Your task to perform on an android device: install app "YouTube Kids" Image 0: 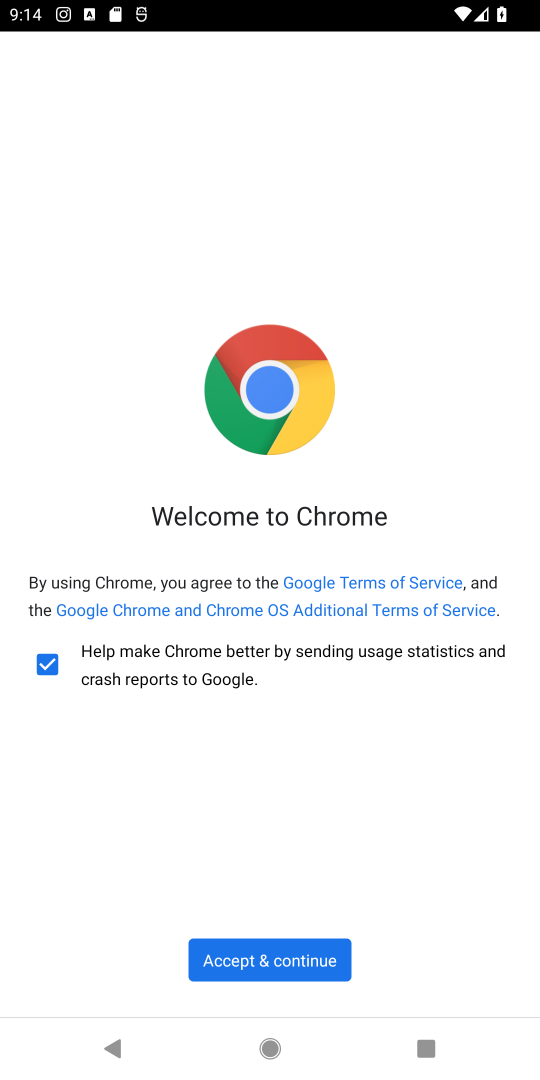
Step 0: press home button
Your task to perform on an android device: install app "YouTube Kids" Image 1: 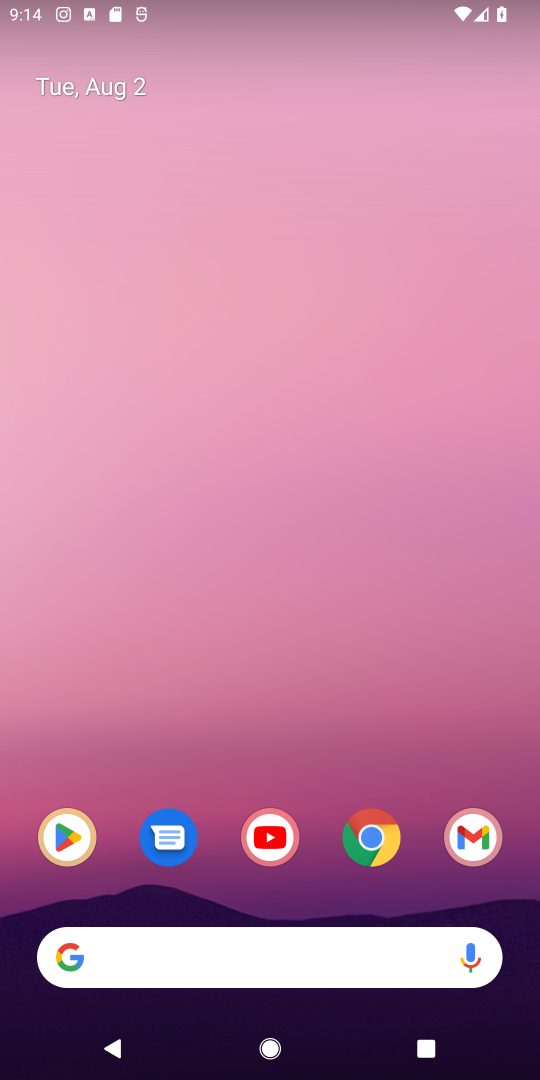
Step 1: click (74, 837)
Your task to perform on an android device: install app "YouTube Kids" Image 2: 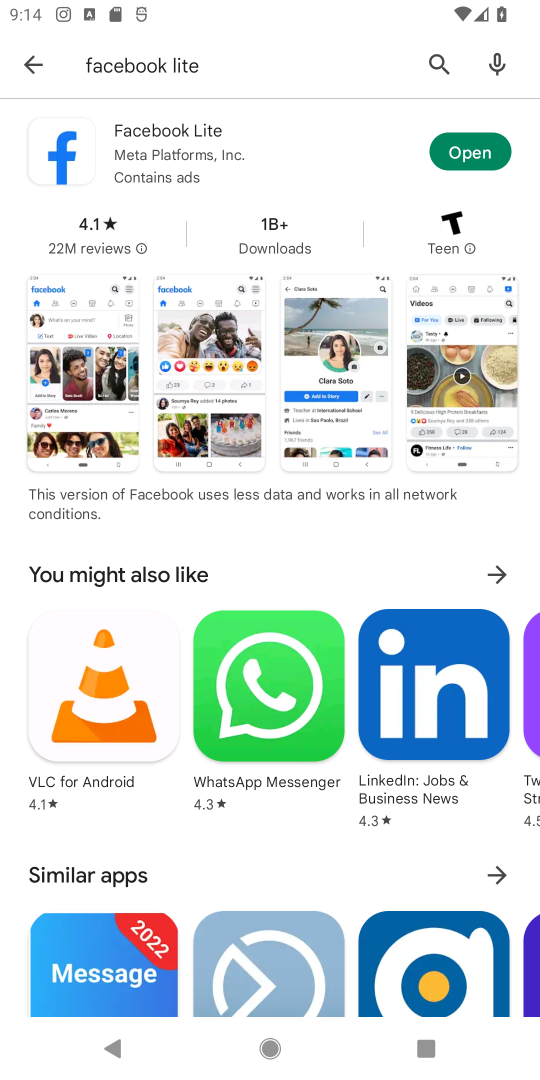
Step 2: click (435, 62)
Your task to perform on an android device: install app "YouTube Kids" Image 3: 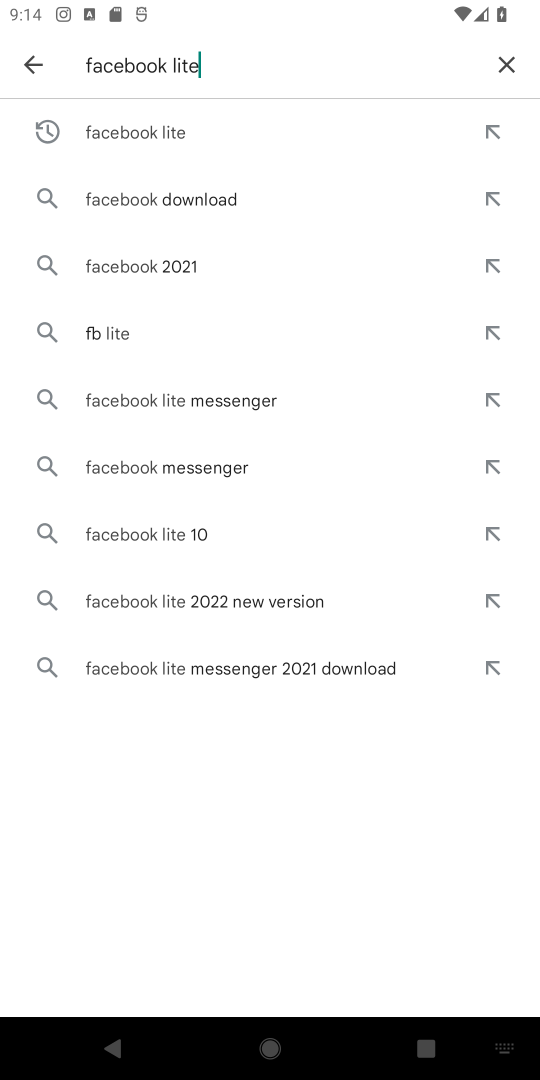
Step 3: click (518, 60)
Your task to perform on an android device: install app "YouTube Kids" Image 4: 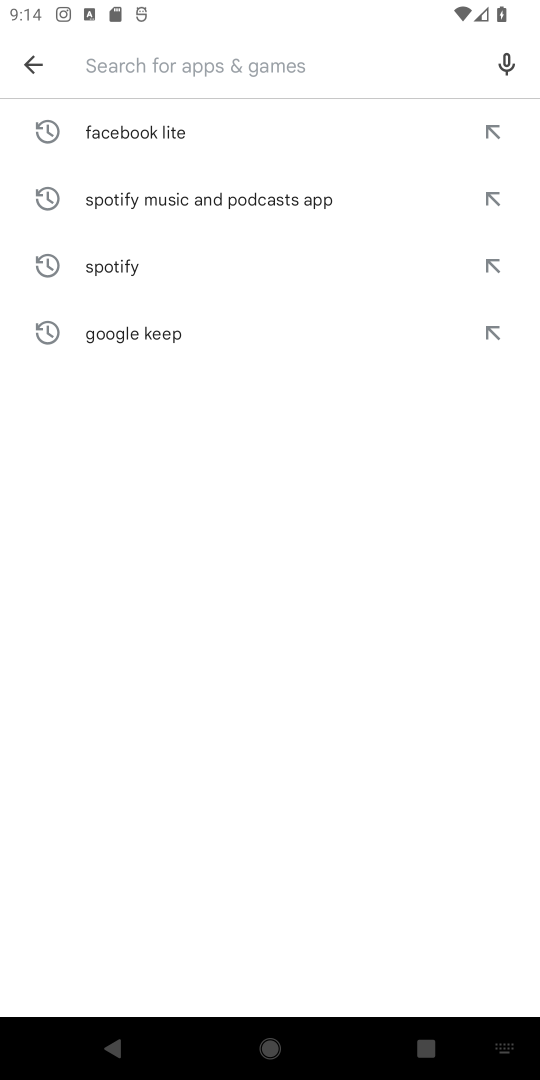
Step 4: type "YouTube Kids"
Your task to perform on an android device: install app "YouTube Kids" Image 5: 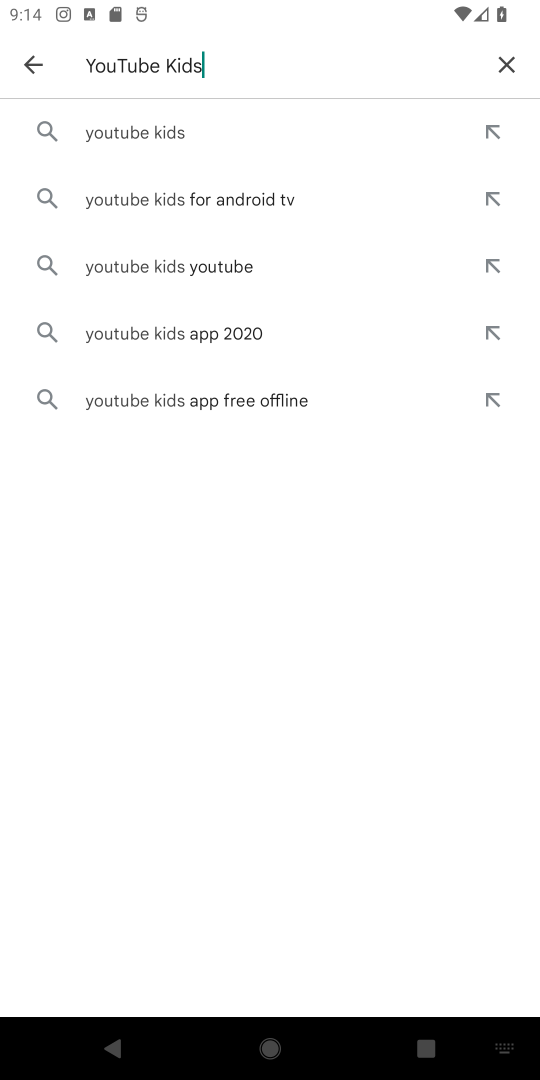
Step 5: click (150, 142)
Your task to perform on an android device: install app "YouTube Kids" Image 6: 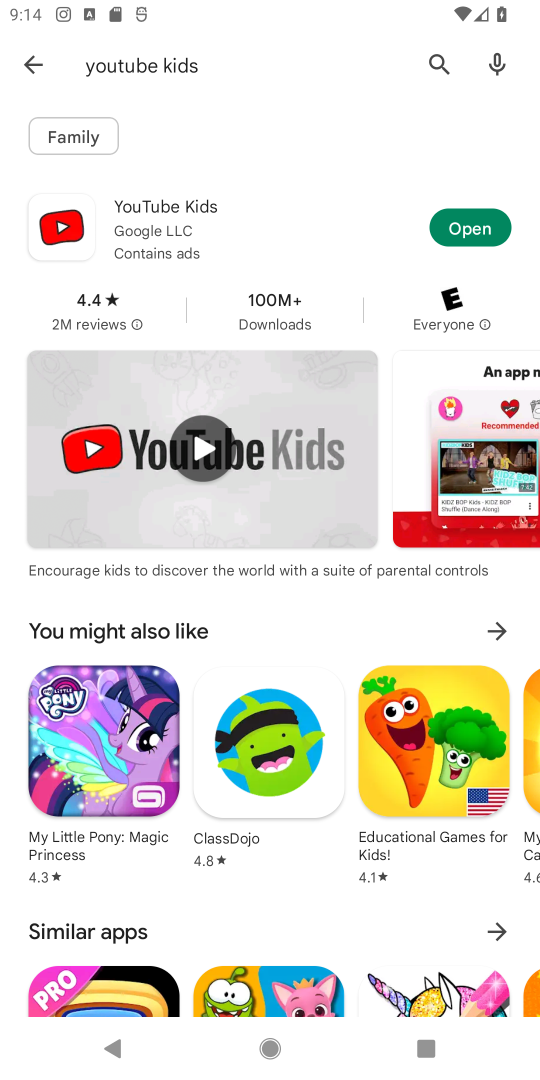
Step 6: task complete